Your task to perform on an android device: delete the emails in spam in the gmail app Image 0: 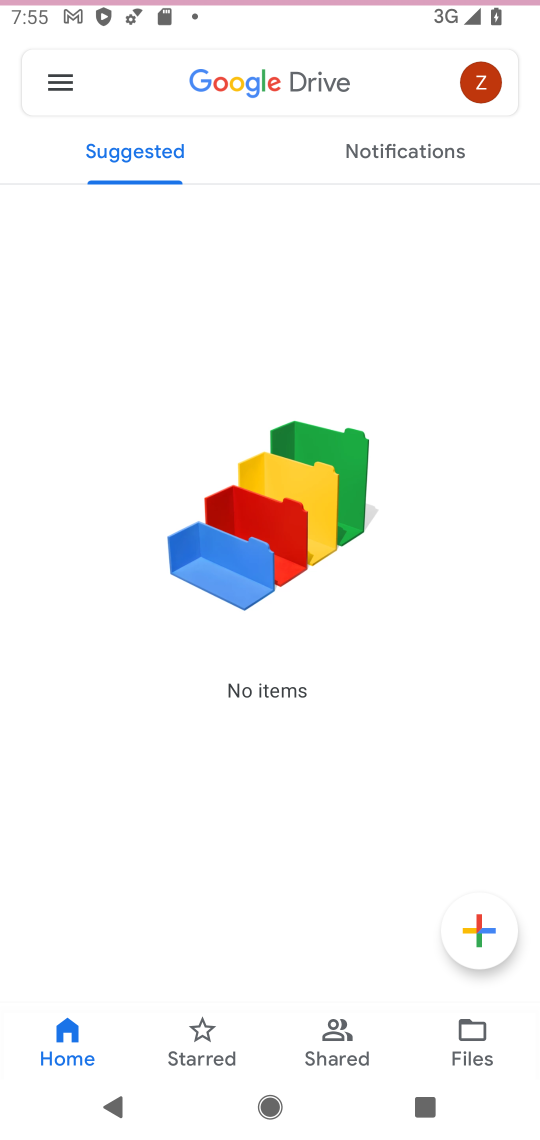
Step 0: press home button
Your task to perform on an android device: delete the emails in spam in the gmail app Image 1: 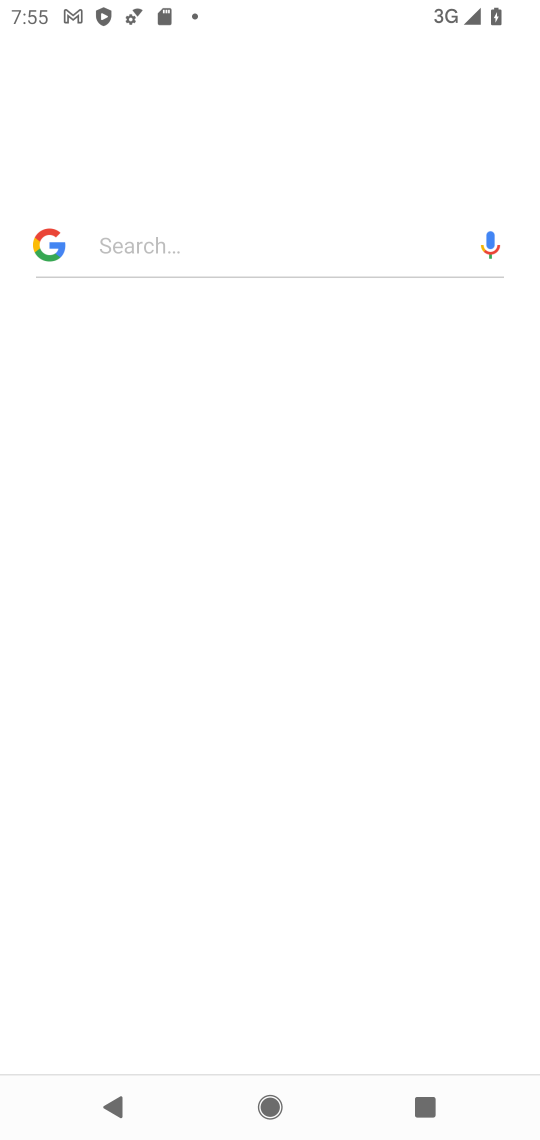
Step 1: press home button
Your task to perform on an android device: delete the emails in spam in the gmail app Image 2: 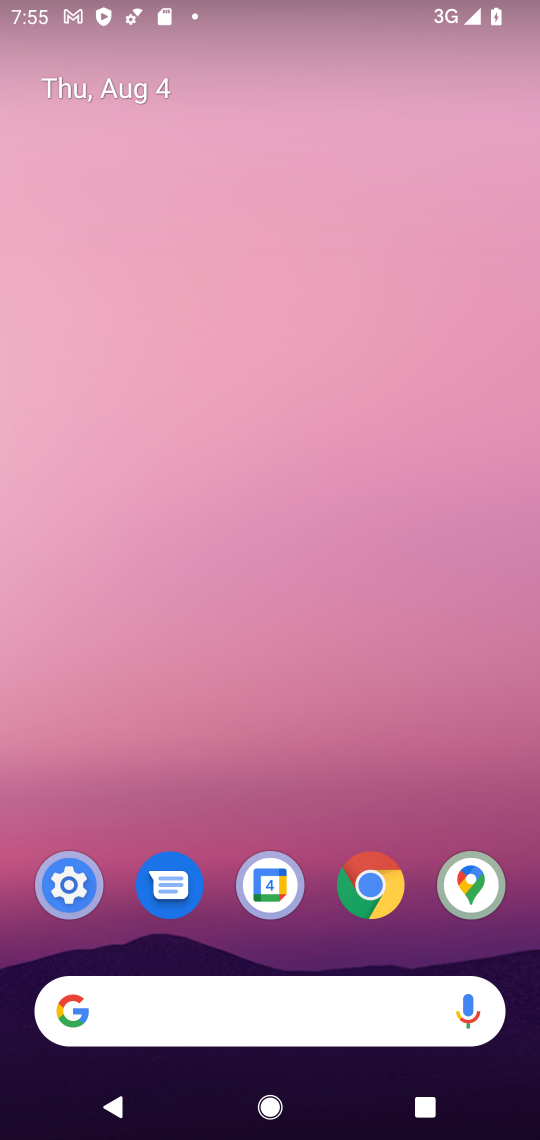
Step 2: drag from (334, 1002) to (262, 280)
Your task to perform on an android device: delete the emails in spam in the gmail app Image 3: 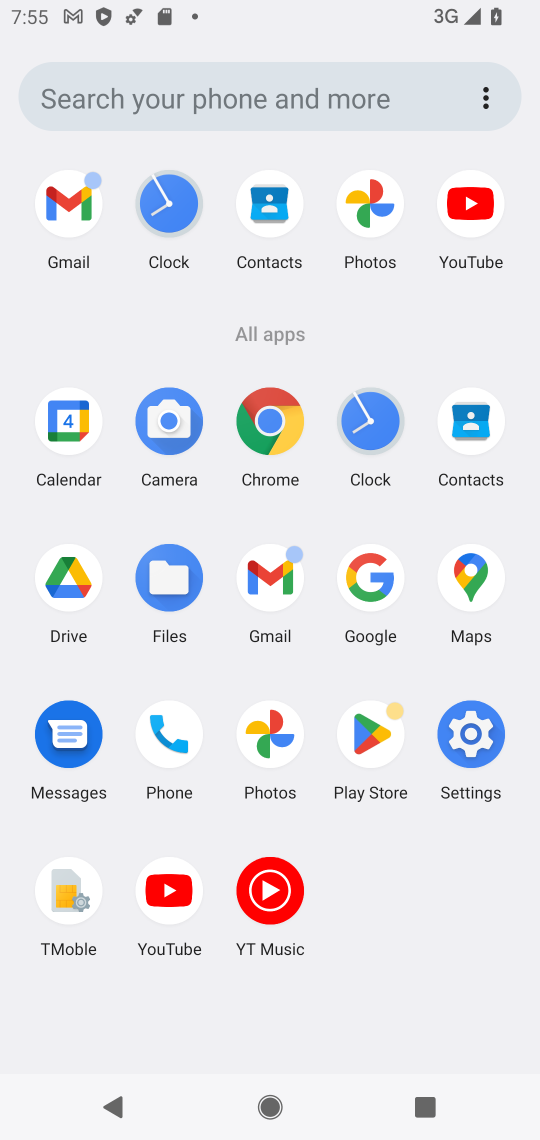
Step 3: click (245, 598)
Your task to perform on an android device: delete the emails in spam in the gmail app Image 4: 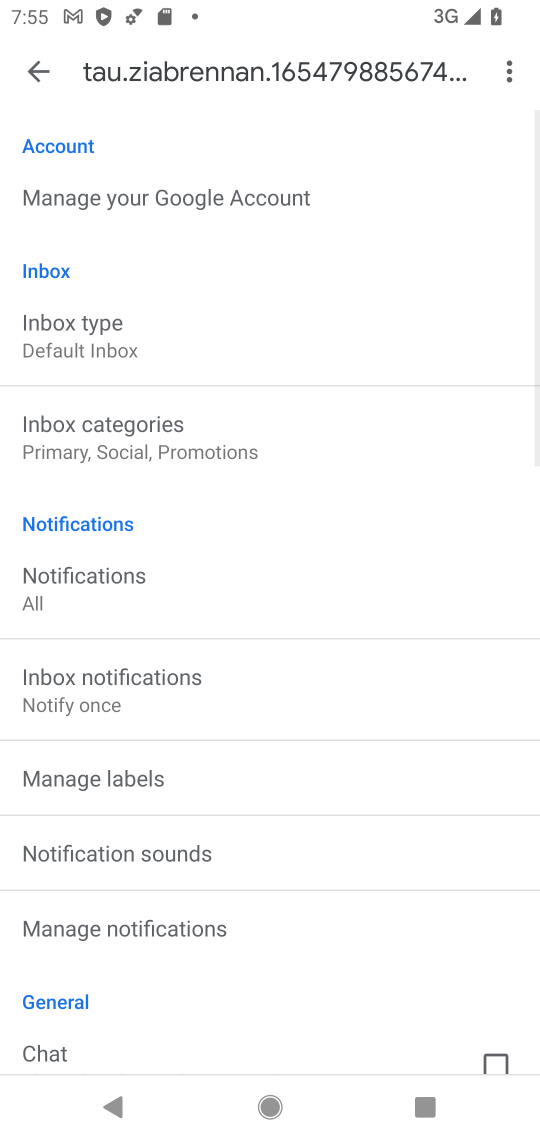
Step 4: click (28, 79)
Your task to perform on an android device: delete the emails in spam in the gmail app Image 5: 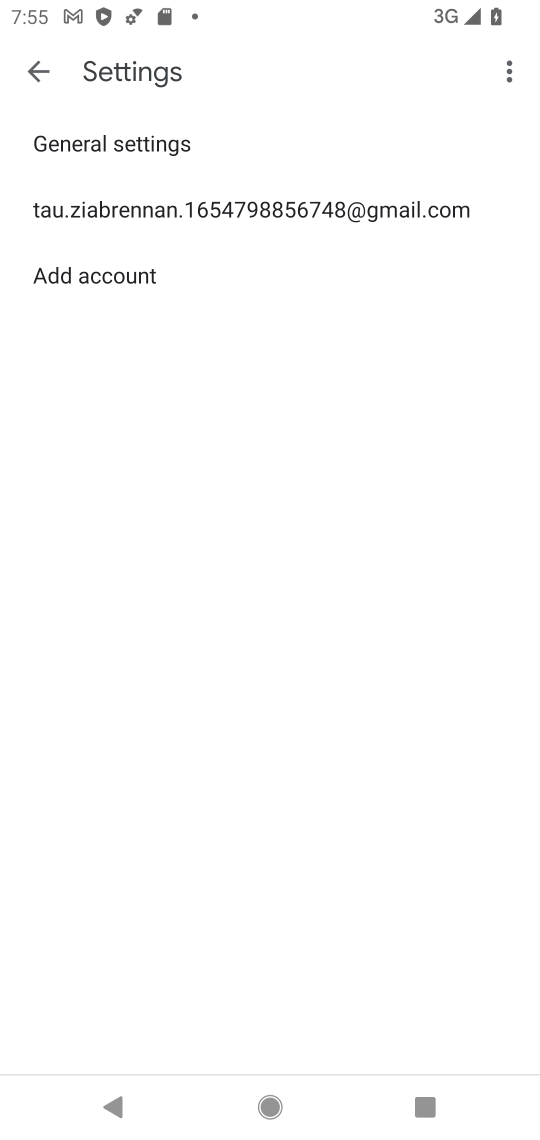
Step 5: click (28, 79)
Your task to perform on an android device: delete the emails in spam in the gmail app Image 6: 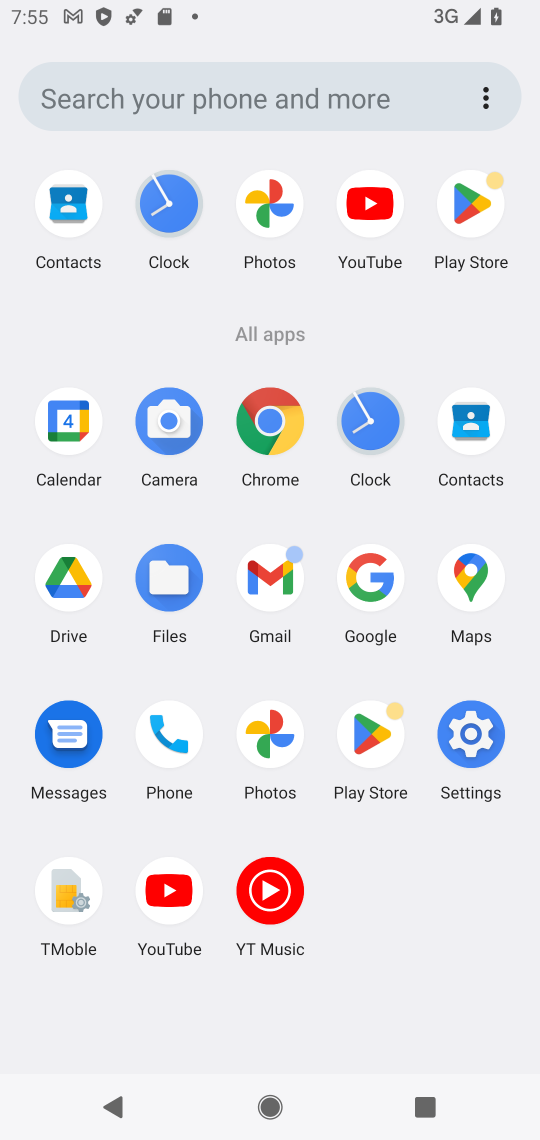
Step 6: click (281, 570)
Your task to perform on an android device: delete the emails in spam in the gmail app Image 7: 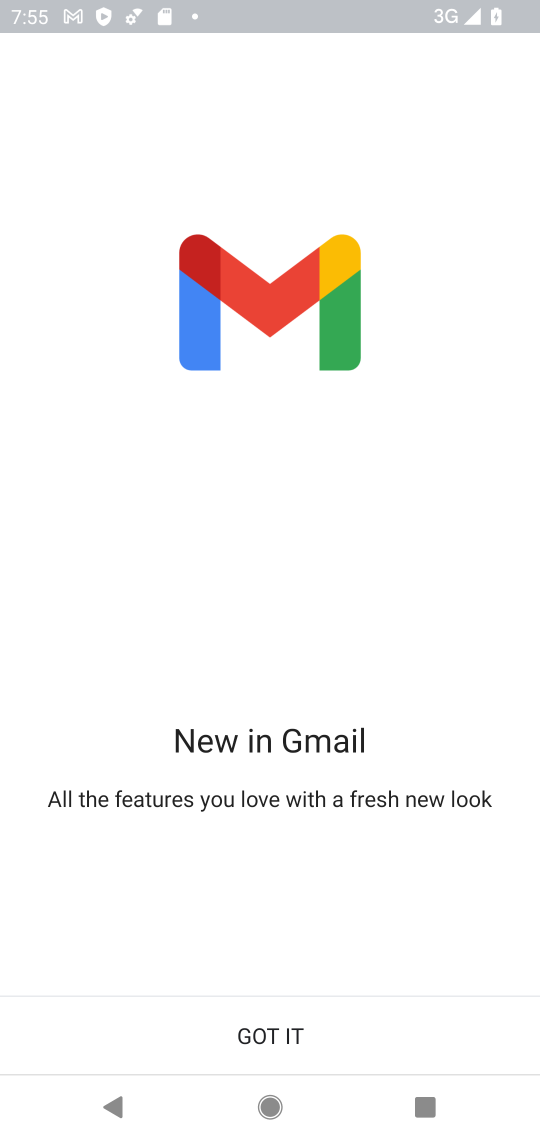
Step 7: click (252, 1047)
Your task to perform on an android device: delete the emails in spam in the gmail app Image 8: 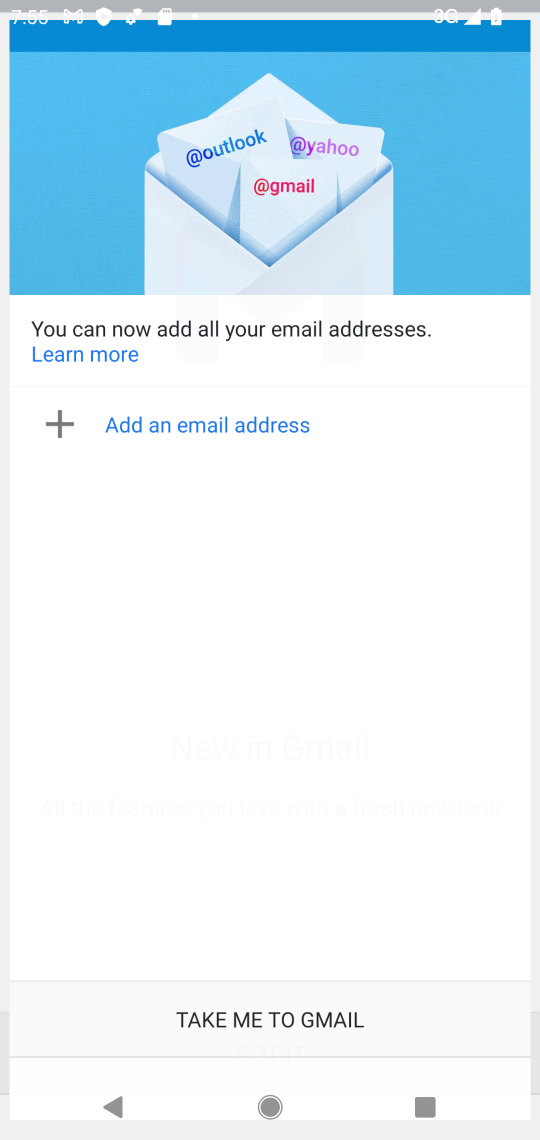
Step 8: click (267, 1047)
Your task to perform on an android device: delete the emails in spam in the gmail app Image 9: 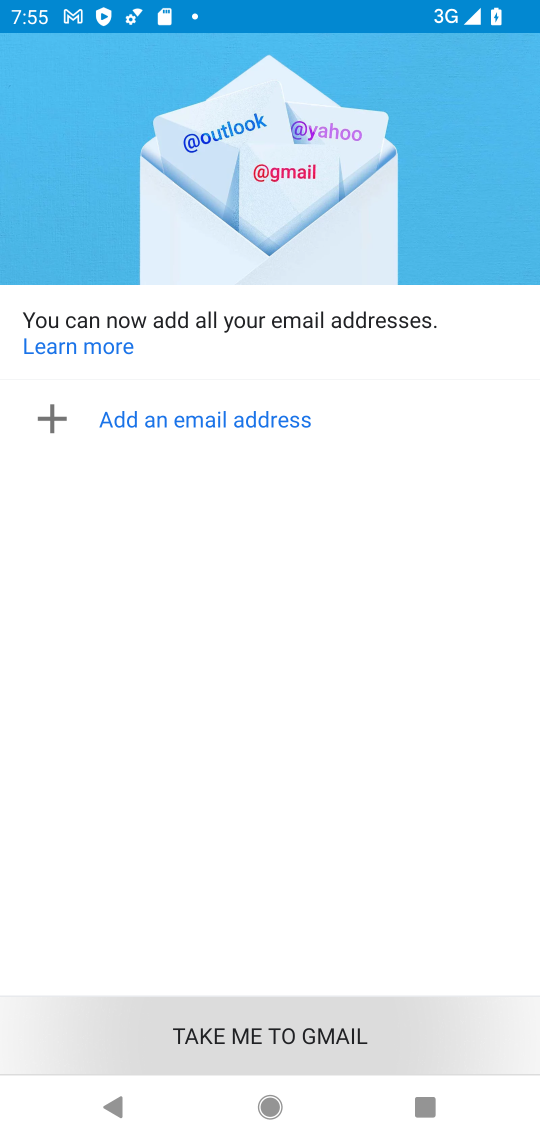
Step 9: click (267, 1047)
Your task to perform on an android device: delete the emails in spam in the gmail app Image 10: 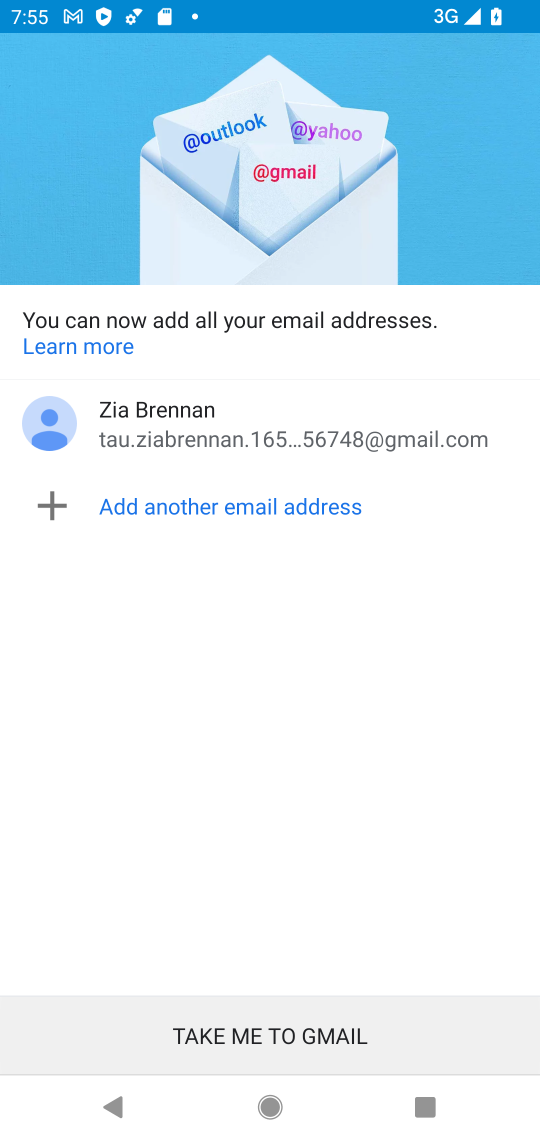
Step 10: click (267, 1047)
Your task to perform on an android device: delete the emails in spam in the gmail app Image 11: 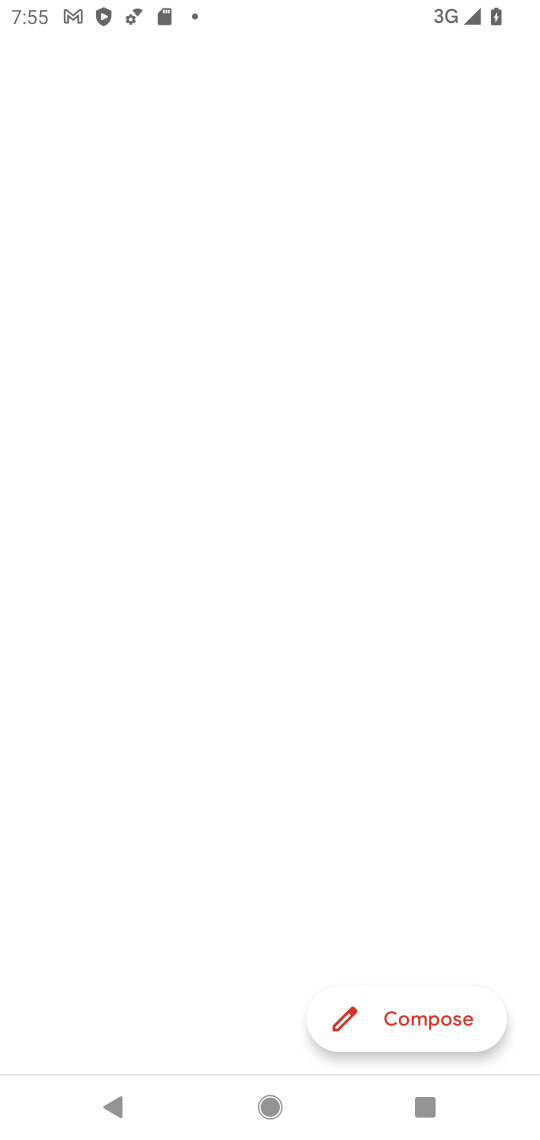
Step 11: click (267, 1047)
Your task to perform on an android device: delete the emails in spam in the gmail app Image 12: 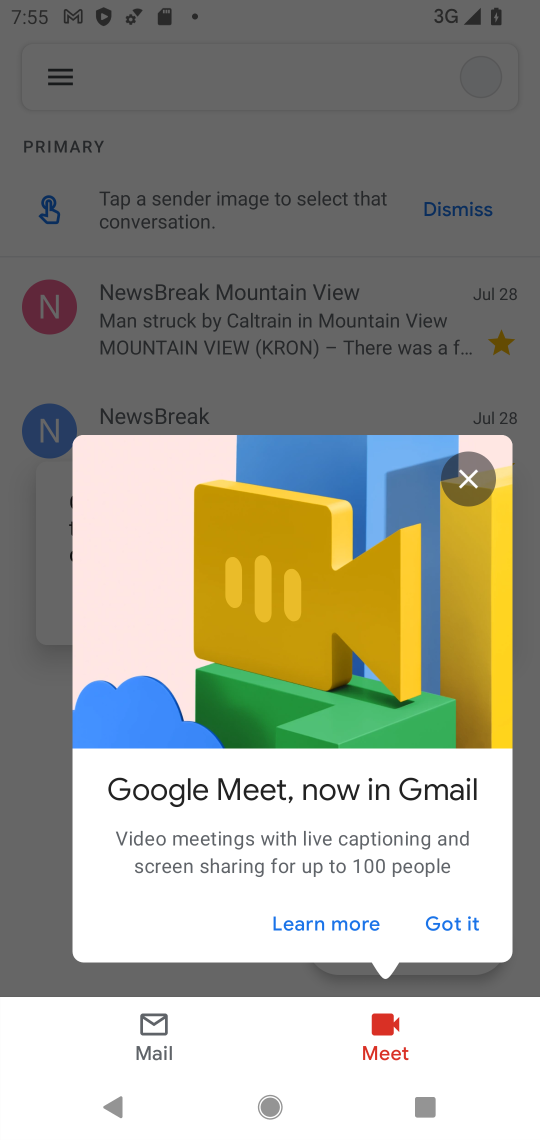
Step 12: click (449, 624)
Your task to perform on an android device: delete the emails in spam in the gmail app Image 13: 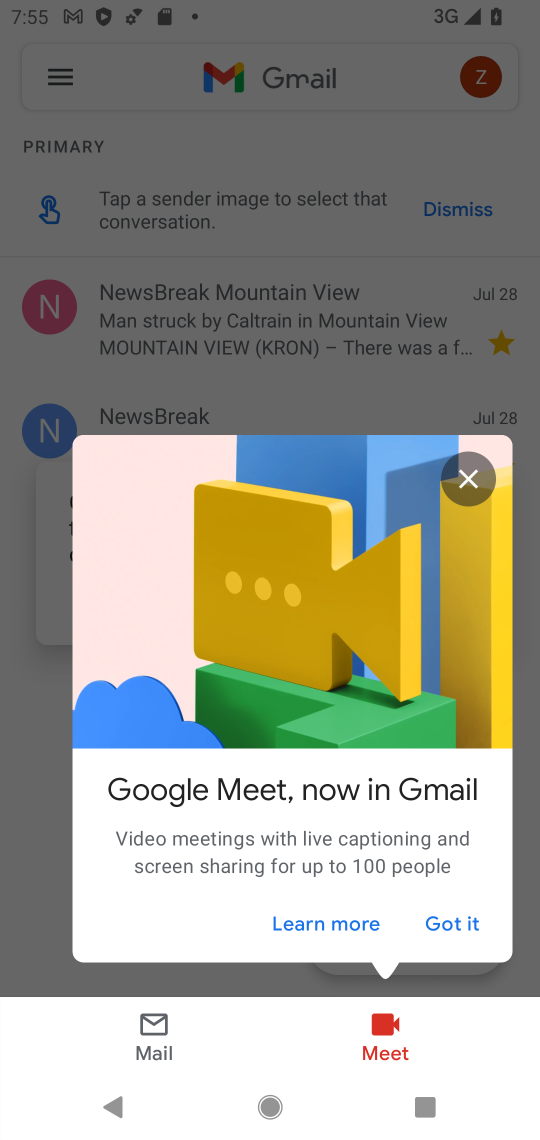
Step 13: click (473, 503)
Your task to perform on an android device: delete the emails in spam in the gmail app Image 14: 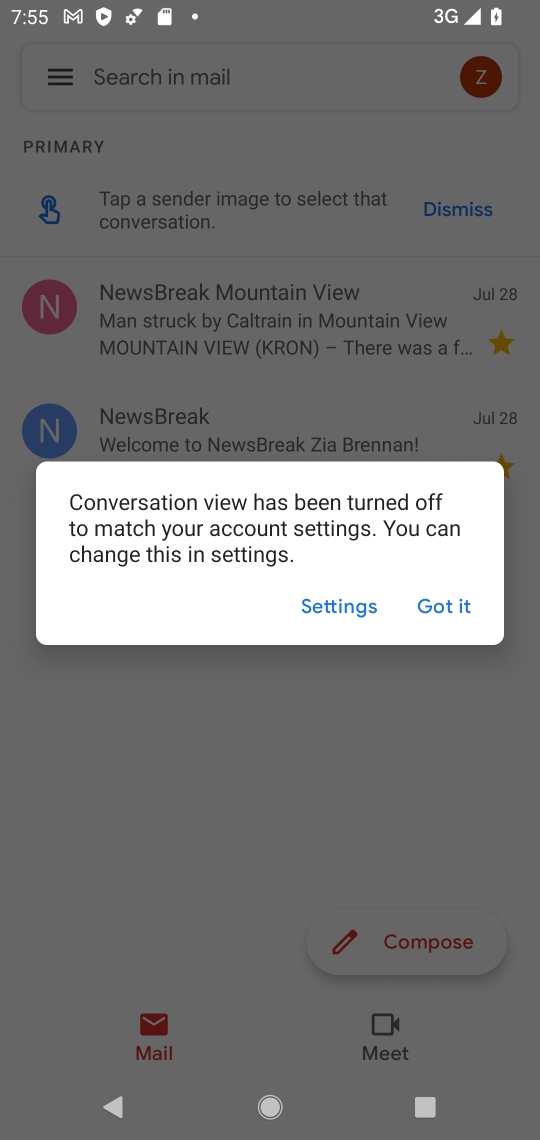
Step 14: click (450, 602)
Your task to perform on an android device: delete the emails in spam in the gmail app Image 15: 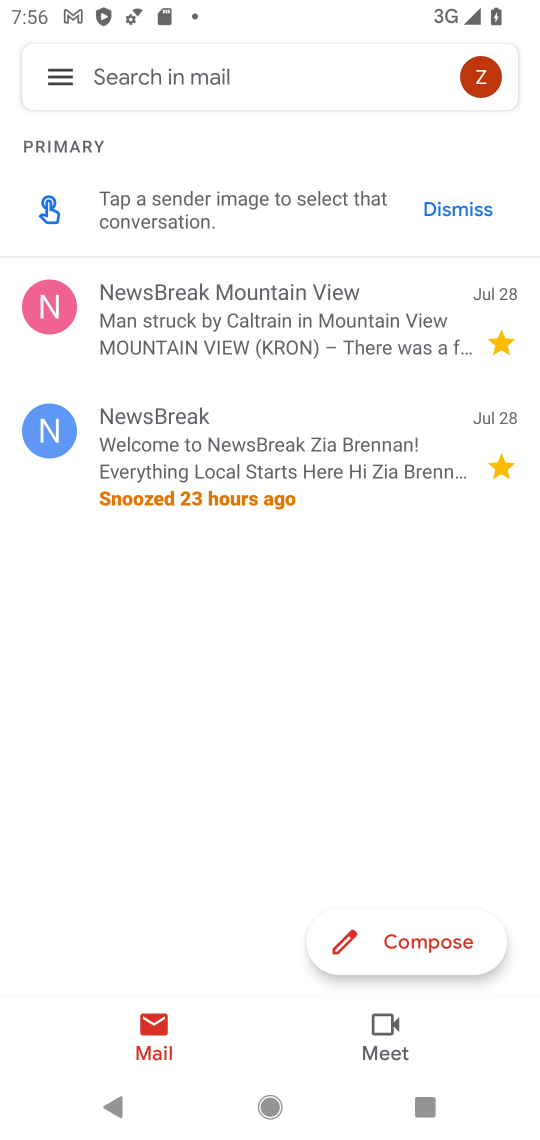
Step 15: click (63, 77)
Your task to perform on an android device: delete the emails in spam in the gmail app Image 16: 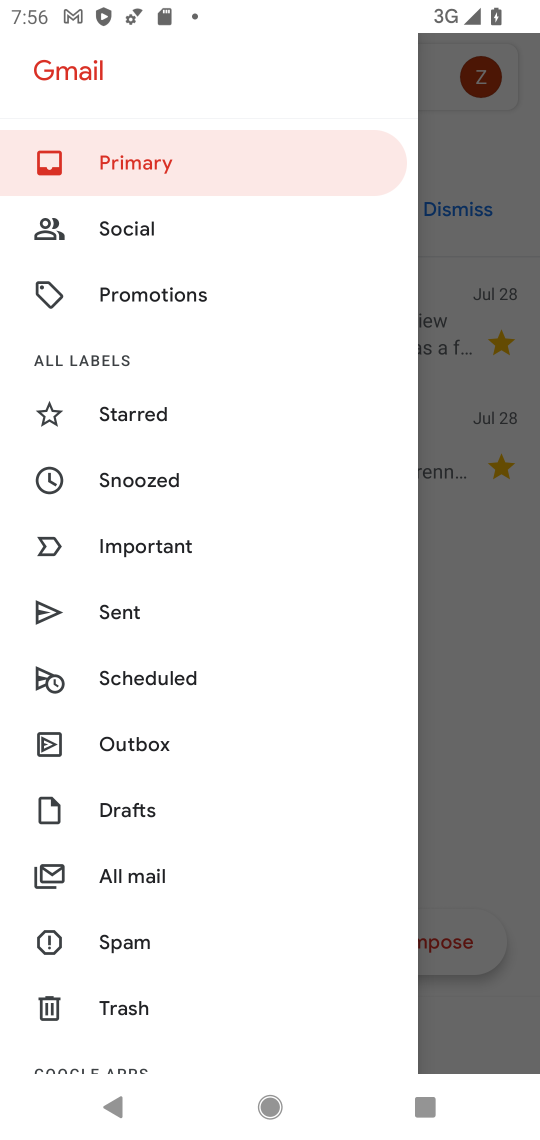
Step 16: click (113, 931)
Your task to perform on an android device: delete the emails in spam in the gmail app Image 17: 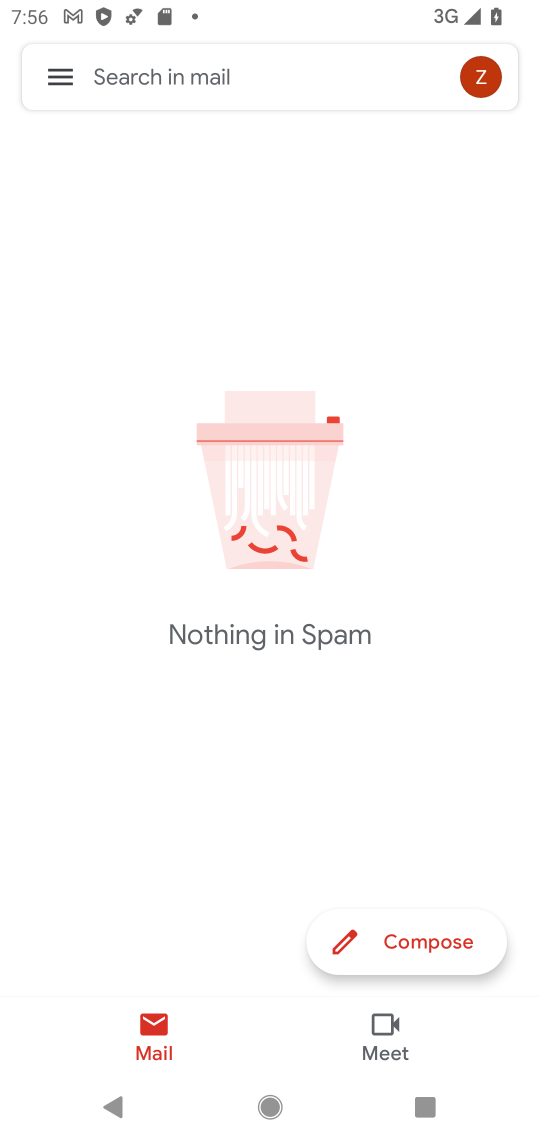
Step 17: task complete